Your task to perform on an android device: Open the phone app and click the voicemail tab. Image 0: 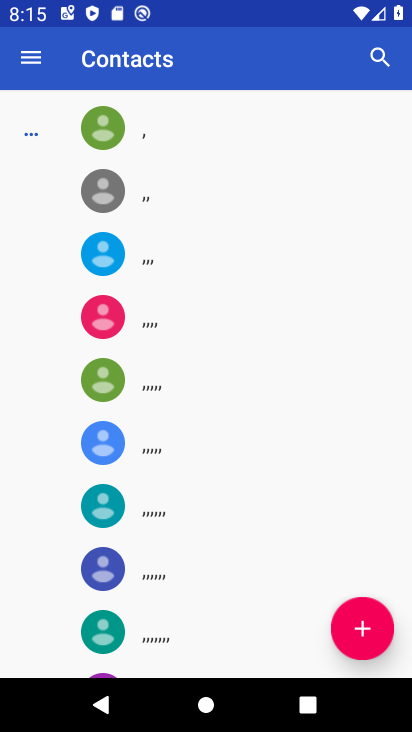
Step 0: press home button
Your task to perform on an android device: Open the phone app and click the voicemail tab. Image 1: 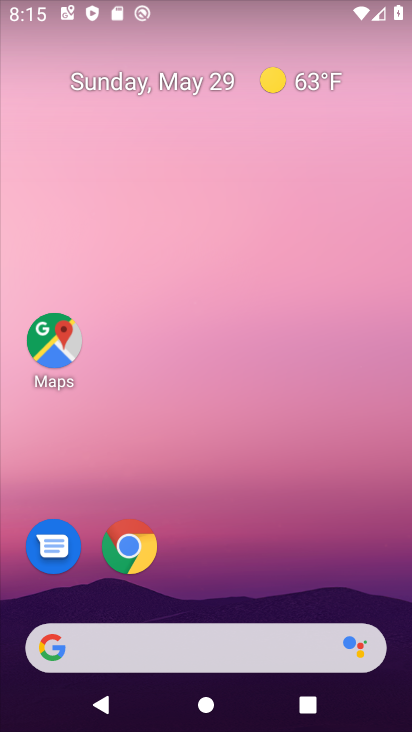
Step 1: drag from (185, 653) to (332, 103)
Your task to perform on an android device: Open the phone app and click the voicemail tab. Image 2: 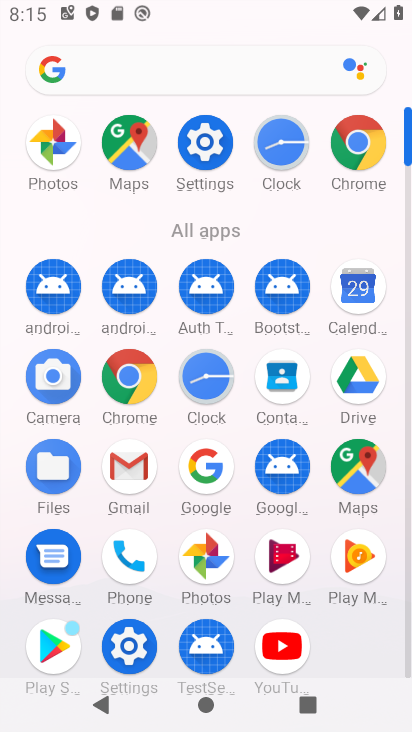
Step 2: click (129, 564)
Your task to perform on an android device: Open the phone app and click the voicemail tab. Image 3: 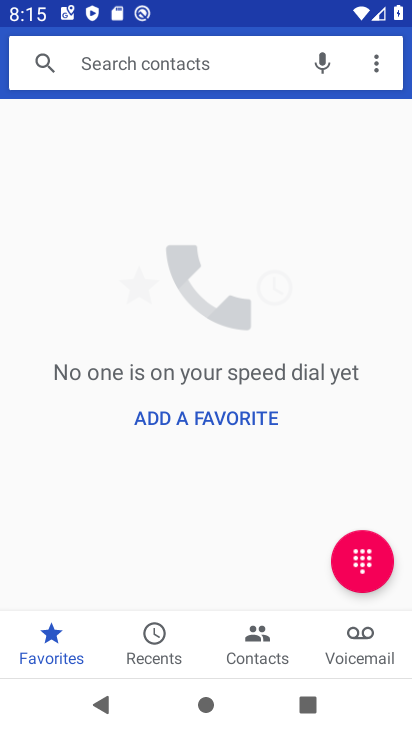
Step 3: click (348, 652)
Your task to perform on an android device: Open the phone app and click the voicemail tab. Image 4: 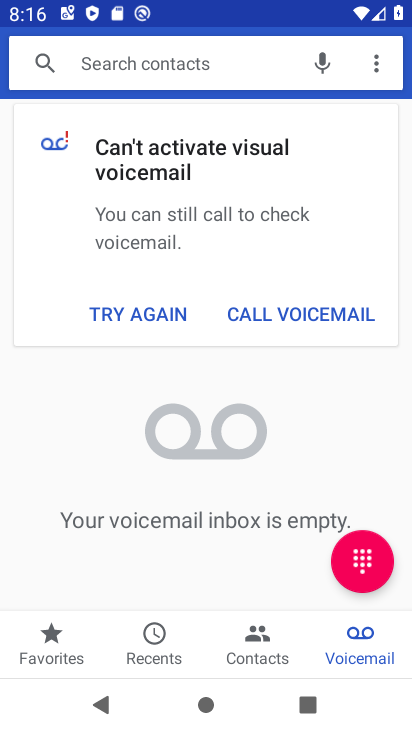
Step 4: task complete